Your task to perform on an android device: toggle location history Image 0: 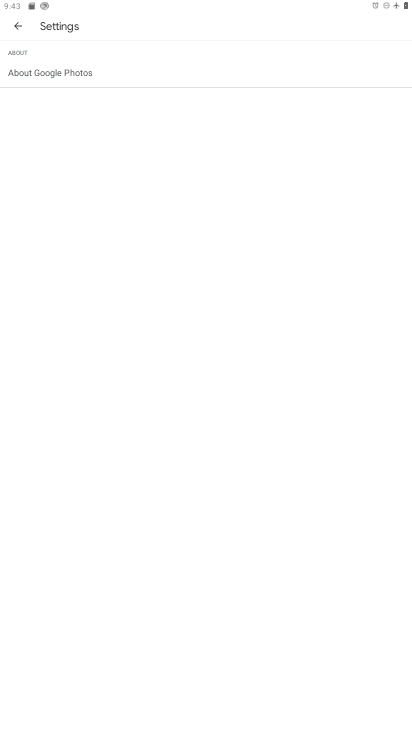
Step 0: press home button
Your task to perform on an android device: toggle location history Image 1: 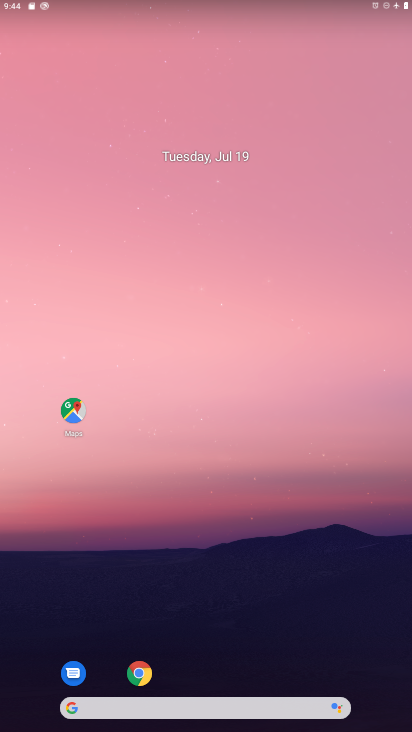
Step 1: click (72, 407)
Your task to perform on an android device: toggle location history Image 2: 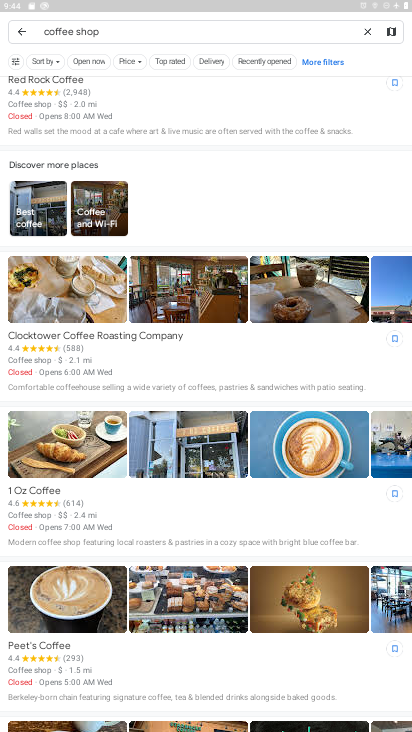
Step 2: click (363, 28)
Your task to perform on an android device: toggle location history Image 3: 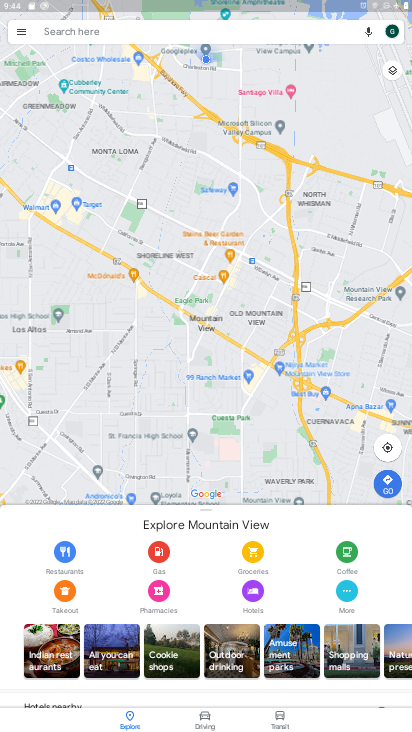
Step 3: click (25, 30)
Your task to perform on an android device: toggle location history Image 4: 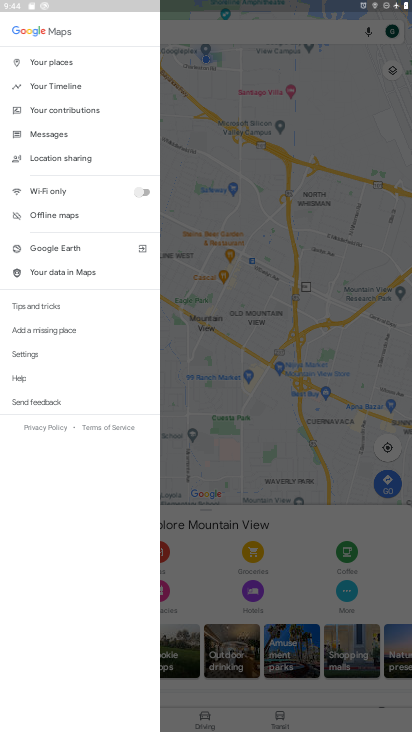
Step 4: click (20, 349)
Your task to perform on an android device: toggle location history Image 5: 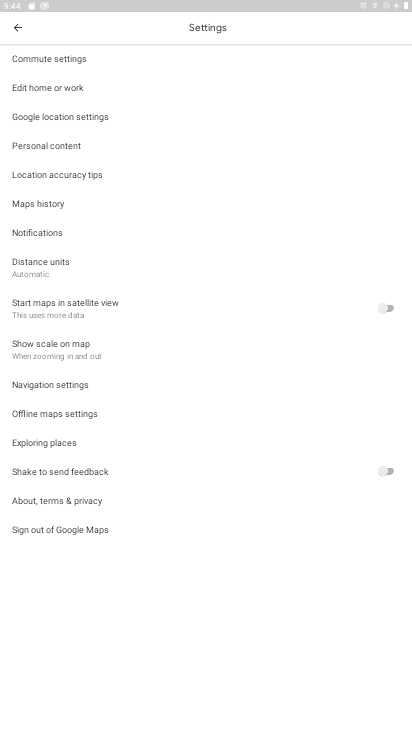
Step 5: click (42, 143)
Your task to perform on an android device: toggle location history Image 6: 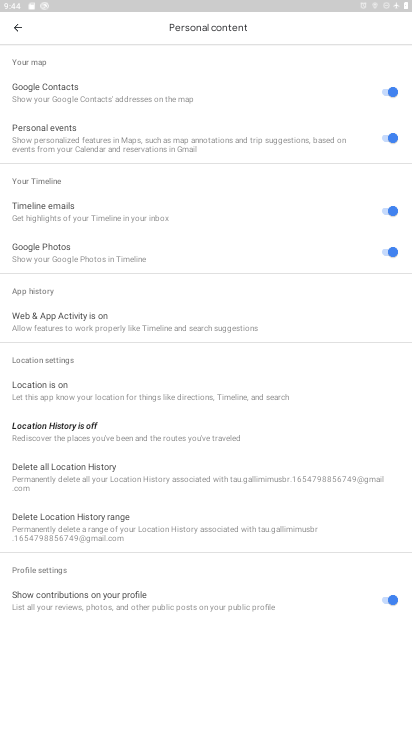
Step 6: click (73, 423)
Your task to perform on an android device: toggle location history Image 7: 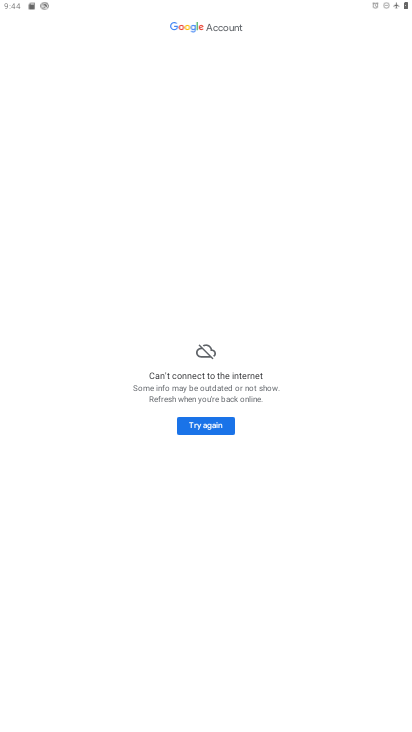
Step 7: click (200, 426)
Your task to perform on an android device: toggle location history Image 8: 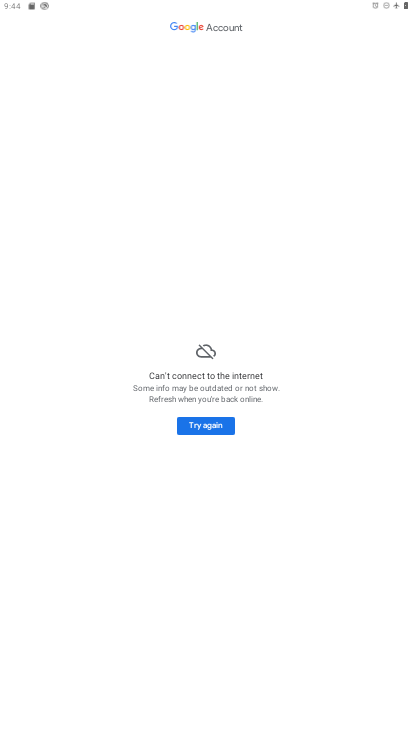
Step 8: click (200, 426)
Your task to perform on an android device: toggle location history Image 9: 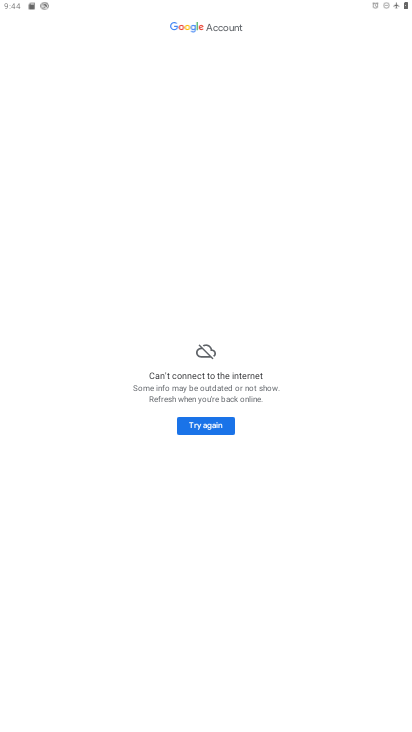
Step 9: task complete